Your task to perform on an android device: toggle airplane mode Image 0: 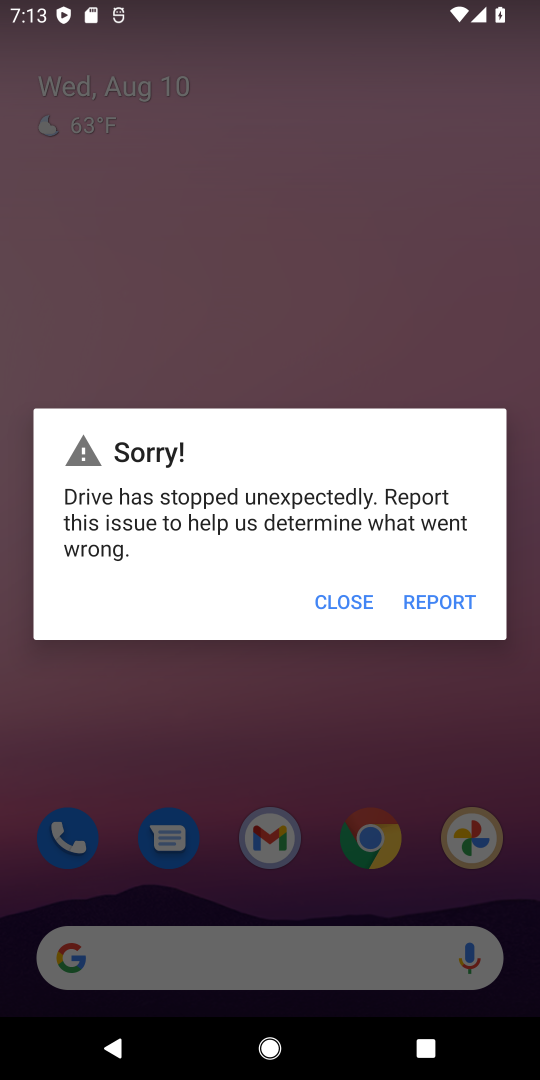
Step 0: press home button
Your task to perform on an android device: toggle airplane mode Image 1: 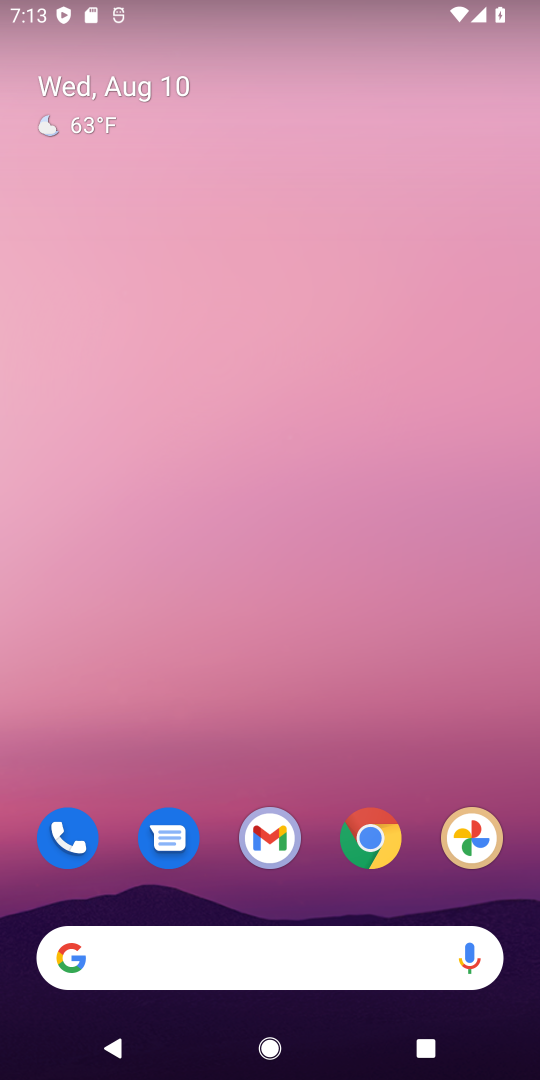
Step 1: drag from (393, 2) to (343, 613)
Your task to perform on an android device: toggle airplane mode Image 2: 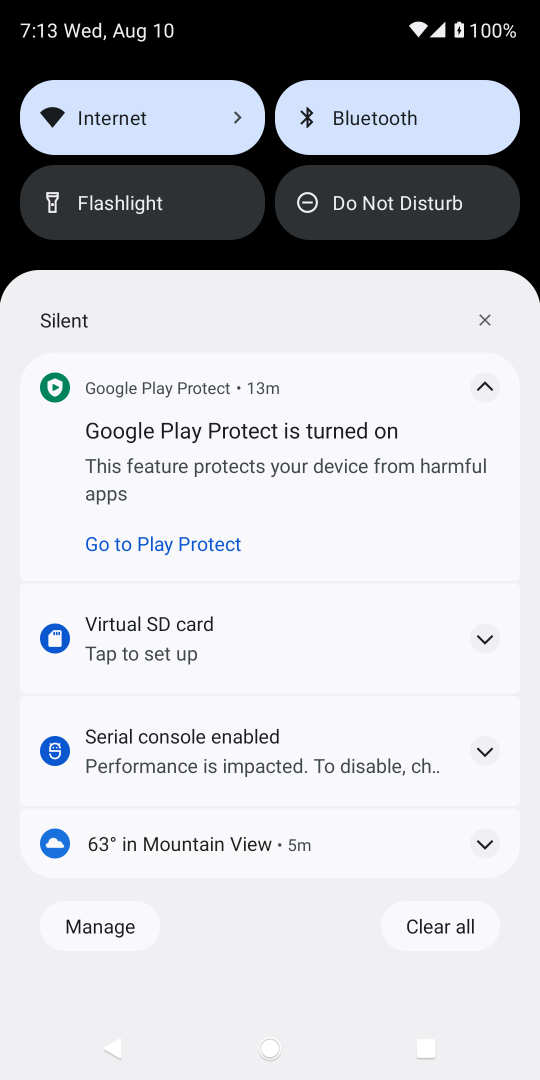
Step 2: drag from (367, 257) to (302, 872)
Your task to perform on an android device: toggle airplane mode Image 3: 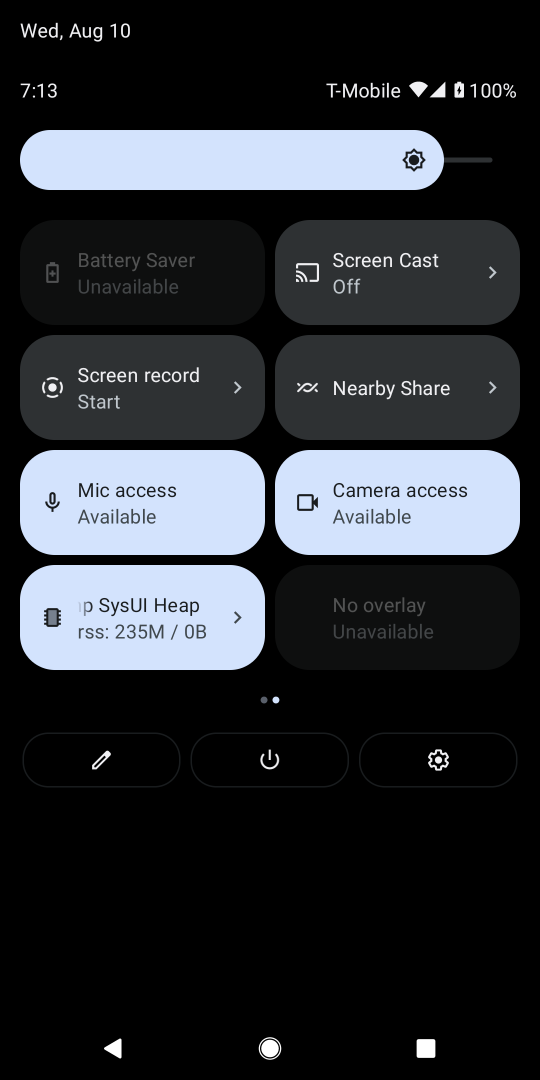
Step 3: click (392, 480)
Your task to perform on an android device: toggle airplane mode Image 4: 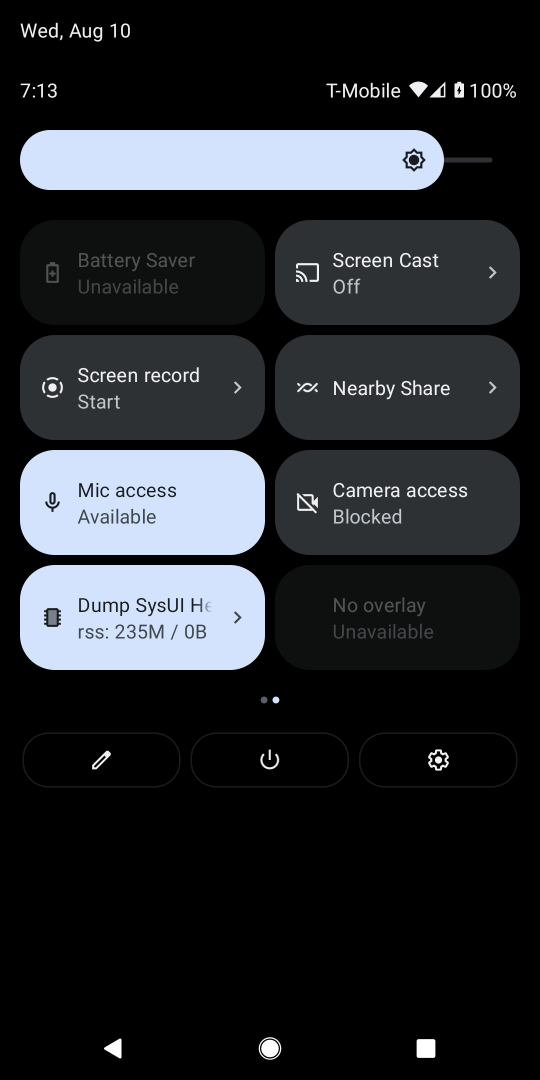
Step 4: task complete